Your task to perform on an android device: change text size in settings app Image 0: 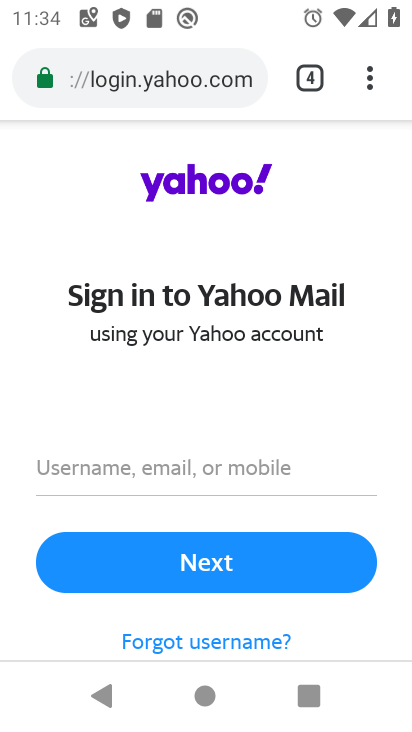
Step 0: press home button
Your task to perform on an android device: change text size in settings app Image 1: 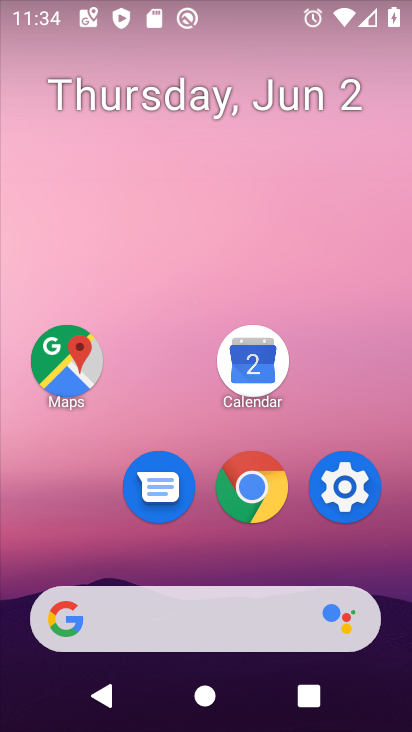
Step 1: drag from (197, 644) to (211, 92)
Your task to perform on an android device: change text size in settings app Image 2: 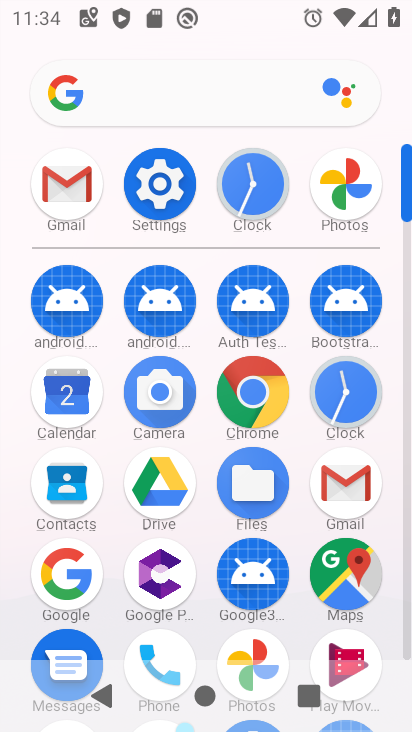
Step 2: click (159, 167)
Your task to perform on an android device: change text size in settings app Image 3: 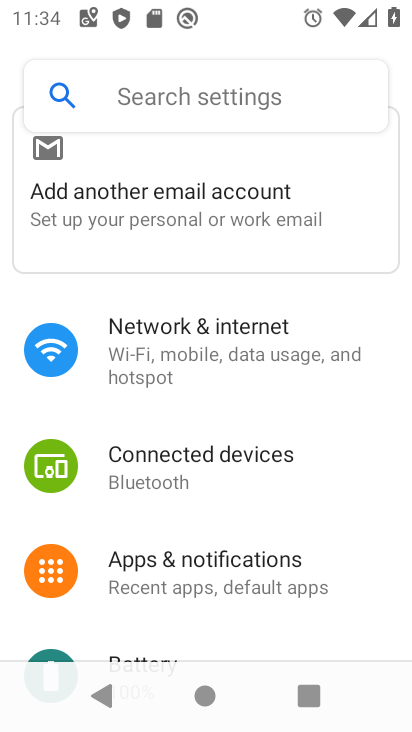
Step 3: click (172, 87)
Your task to perform on an android device: change text size in settings app Image 4: 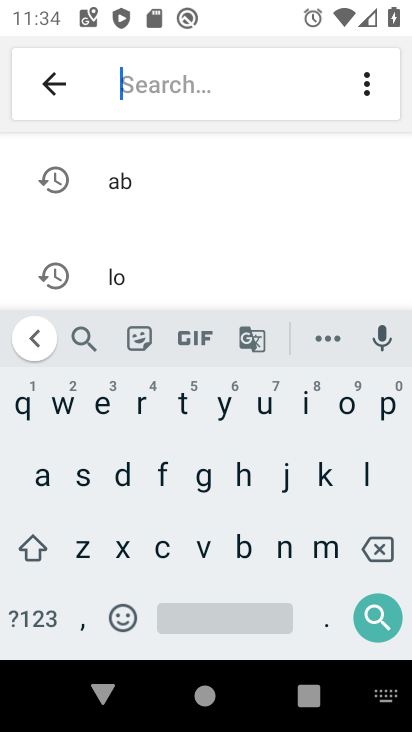
Step 4: click (86, 476)
Your task to perform on an android device: change text size in settings app Image 5: 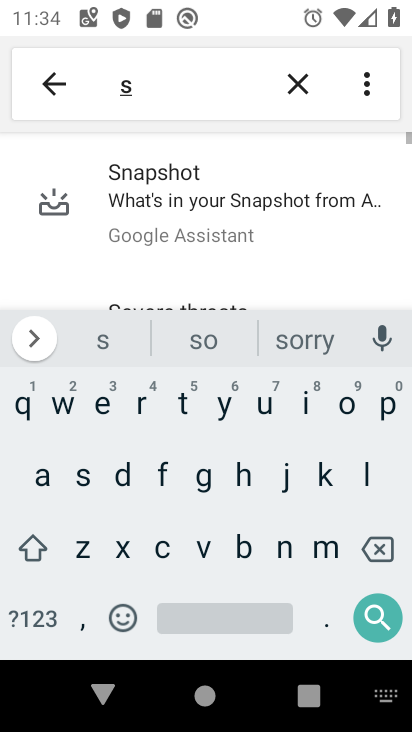
Step 5: click (311, 399)
Your task to perform on an android device: change text size in settings app Image 6: 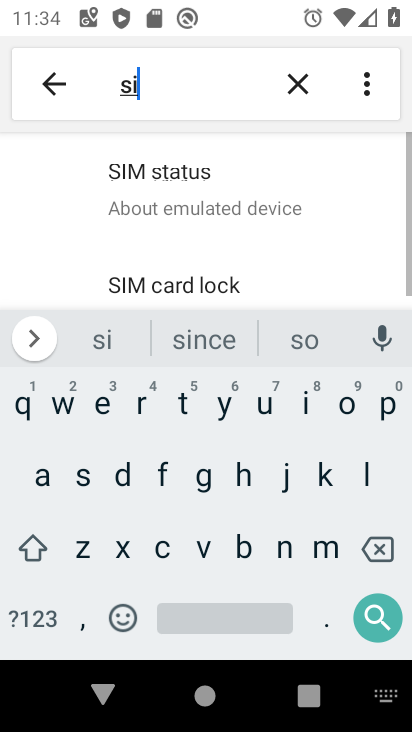
Step 6: click (79, 543)
Your task to perform on an android device: change text size in settings app Image 7: 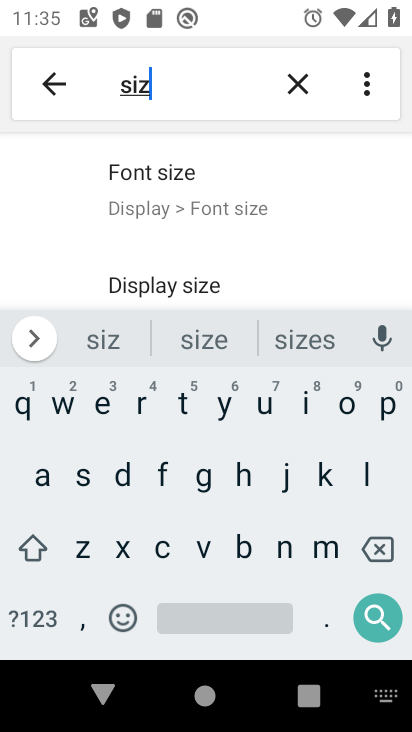
Step 7: click (209, 203)
Your task to perform on an android device: change text size in settings app Image 8: 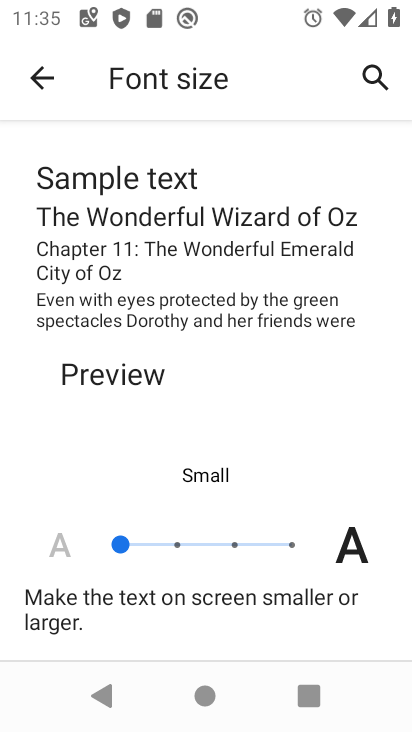
Step 8: click (169, 542)
Your task to perform on an android device: change text size in settings app Image 9: 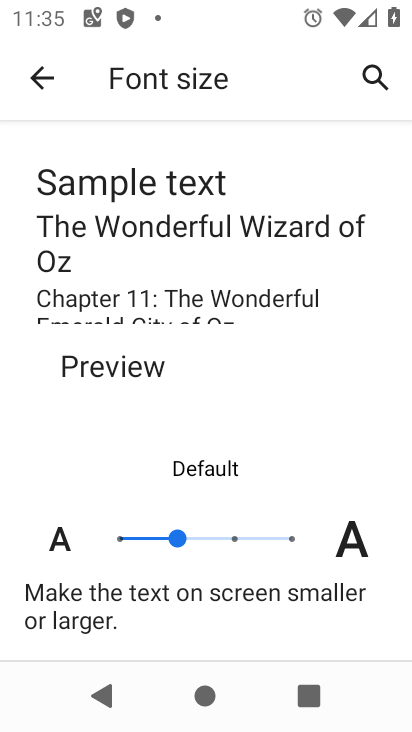
Step 9: task complete